Your task to perform on an android device: Go to battery settings Image 0: 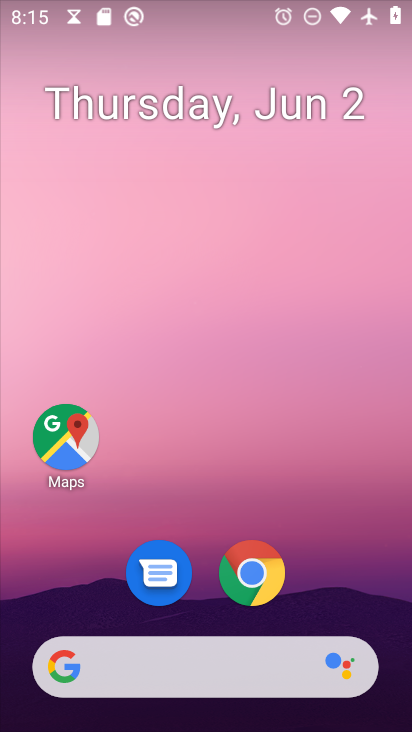
Step 0: drag from (200, 673) to (307, 120)
Your task to perform on an android device: Go to battery settings Image 1: 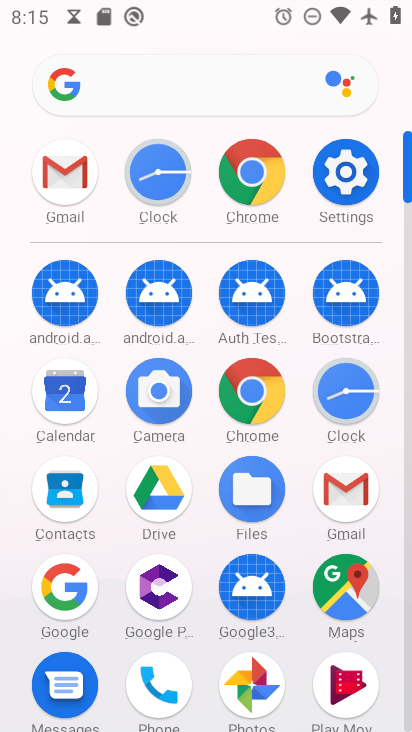
Step 1: click (354, 179)
Your task to perform on an android device: Go to battery settings Image 2: 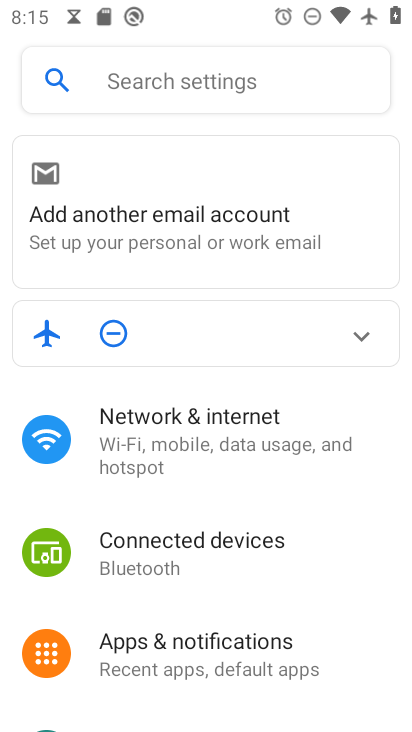
Step 2: drag from (271, 570) to (325, 151)
Your task to perform on an android device: Go to battery settings Image 3: 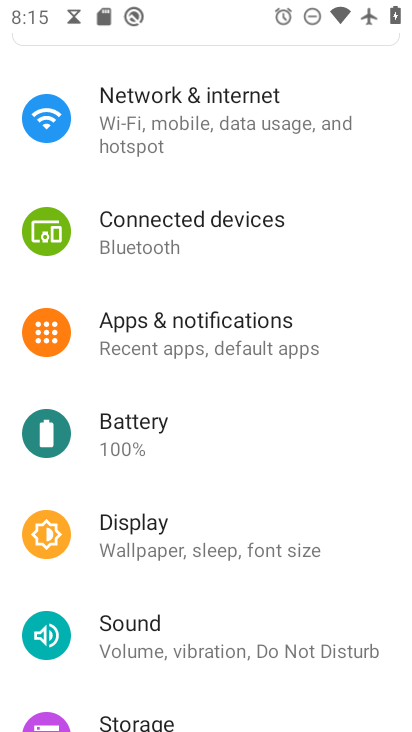
Step 3: click (145, 421)
Your task to perform on an android device: Go to battery settings Image 4: 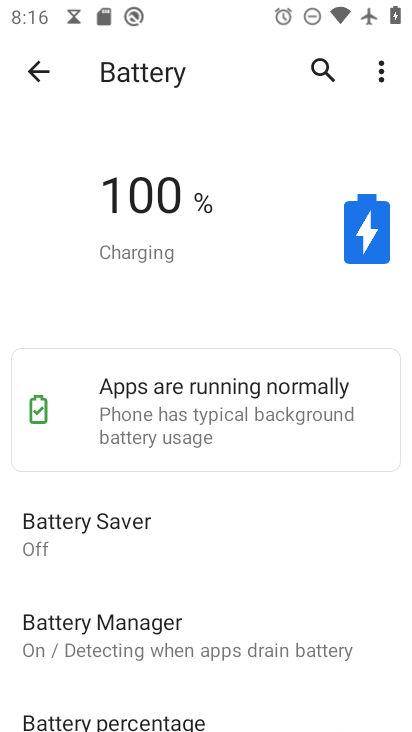
Step 4: task complete